Your task to perform on an android device: Open Amazon Image 0: 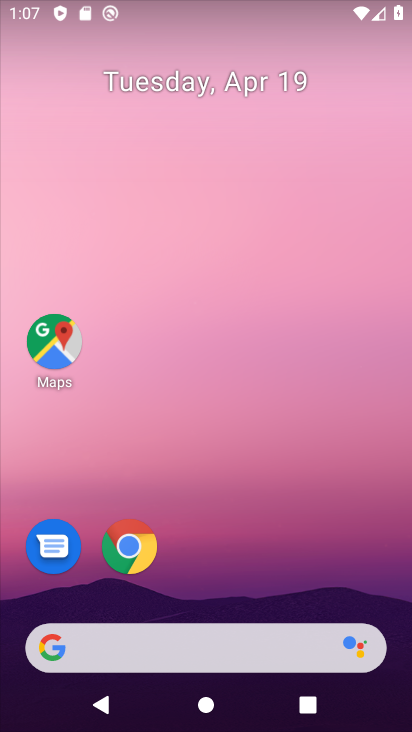
Step 0: click (128, 548)
Your task to perform on an android device: Open Amazon Image 1: 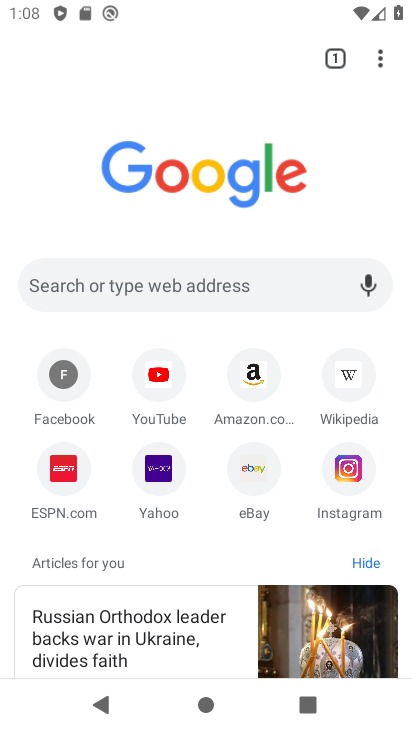
Step 1: click (254, 372)
Your task to perform on an android device: Open Amazon Image 2: 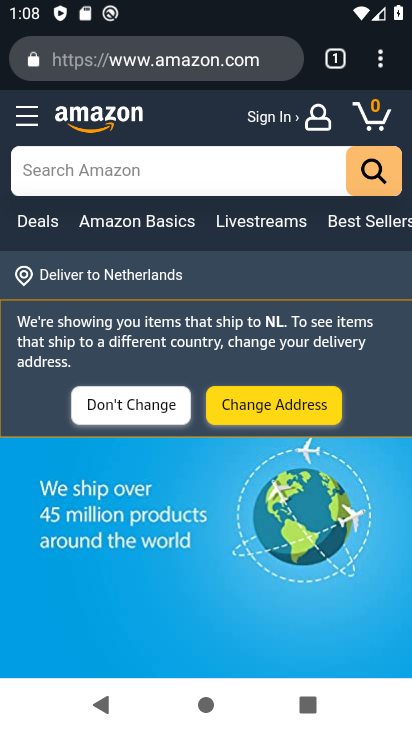
Step 2: task complete